Your task to perform on an android device: turn off smart reply in the gmail app Image 0: 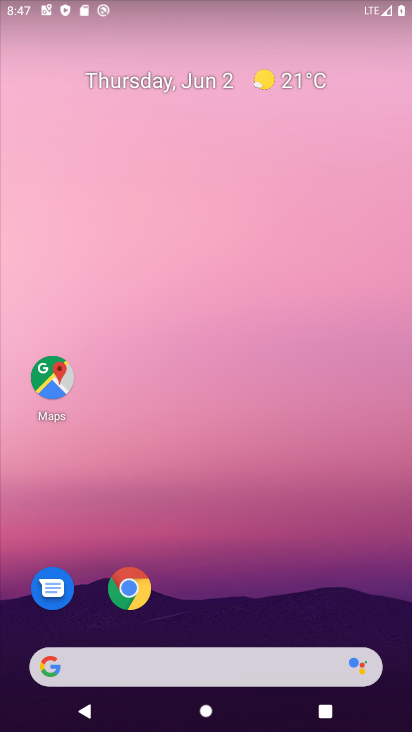
Step 0: drag from (163, 595) to (227, 151)
Your task to perform on an android device: turn off smart reply in the gmail app Image 1: 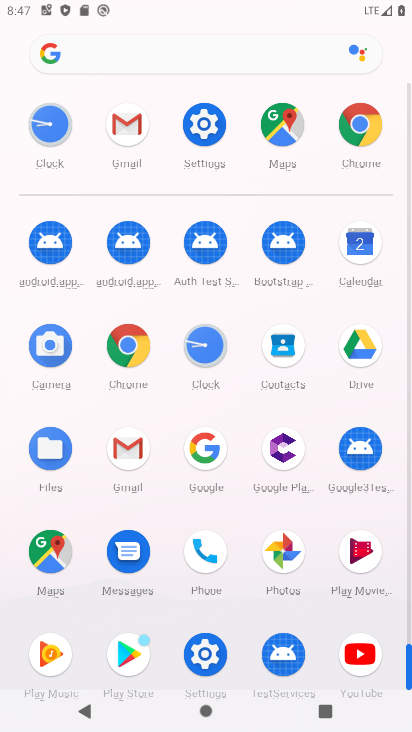
Step 1: click (136, 459)
Your task to perform on an android device: turn off smart reply in the gmail app Image 2: 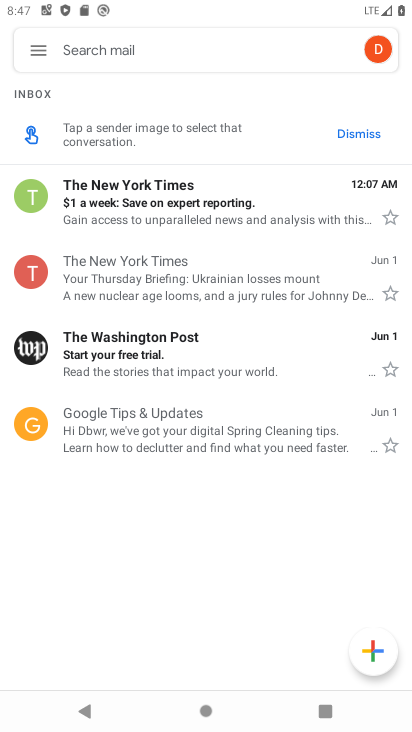
Step 2: click (36, 42)
Your task to perform on an android device: turn off smart reply in the gmail app Image 3: 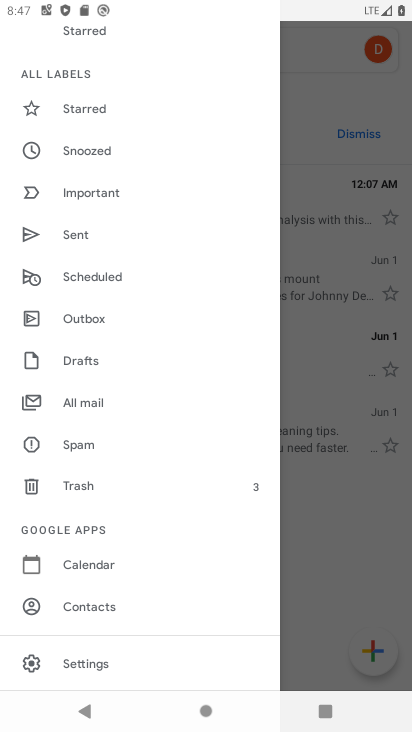
Step 3: click (103, 656)
Your task to perform on an android device: turn off smart reply in the gmail app Image 4: 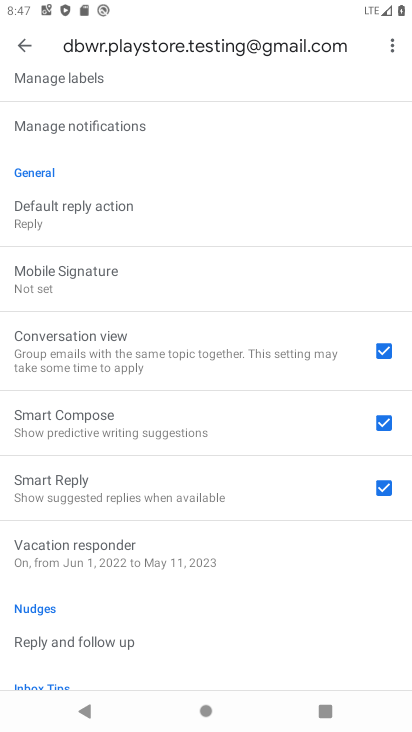
Step 4: click (385, 491)
Your task to perform on an android device: turn off smart reply in the gmail app Image 5: 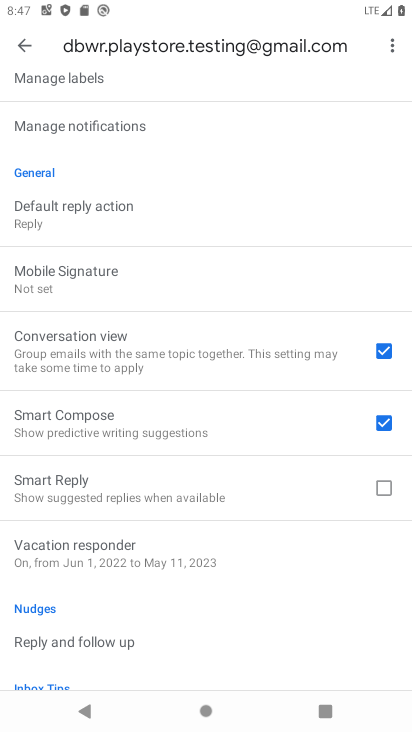
Step 5: task complete